Your task to perform on an android device: Go to battery settings Image 0: 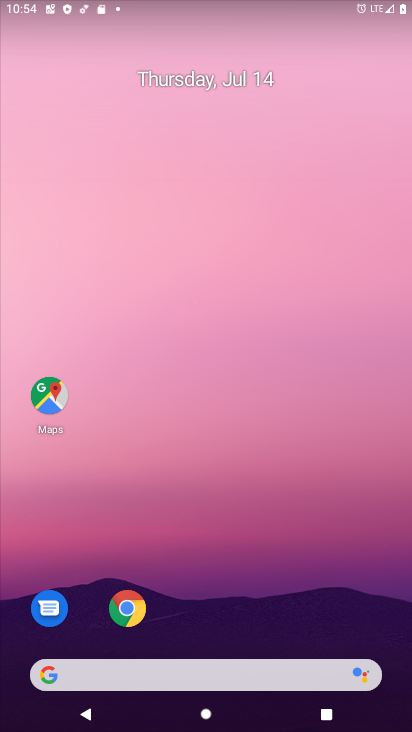
Step 0: drag from (228, 705) to (266, 143)
Your task to perform on an android device: Go to battery settings Image 1: 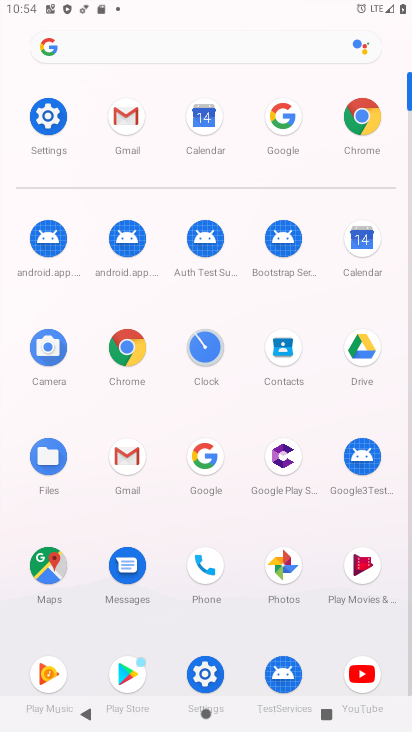
Step 1: click (50, 112)
Your task to perform on an android device: Go to battery settings Image 2: 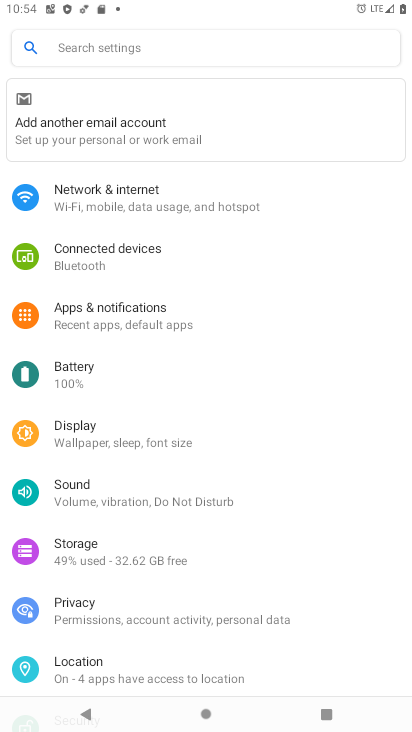
Step 2: click (66, 363)
Your task to perform on an android device: Go to battery settings Image 3: 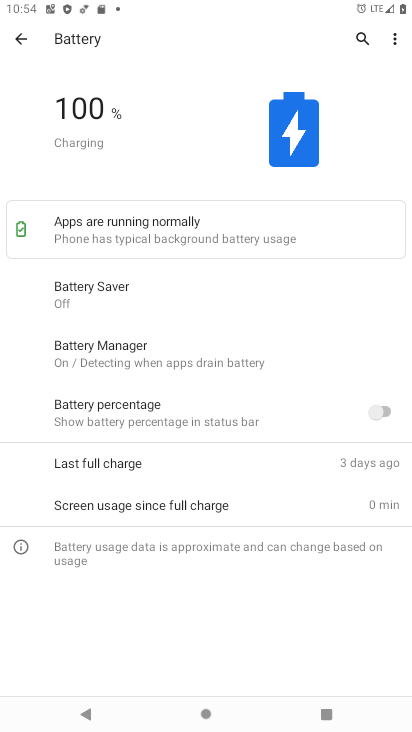
Step 3: task complete